Your task to perform on an android device: refresh tabs in the chrome app Image 0: 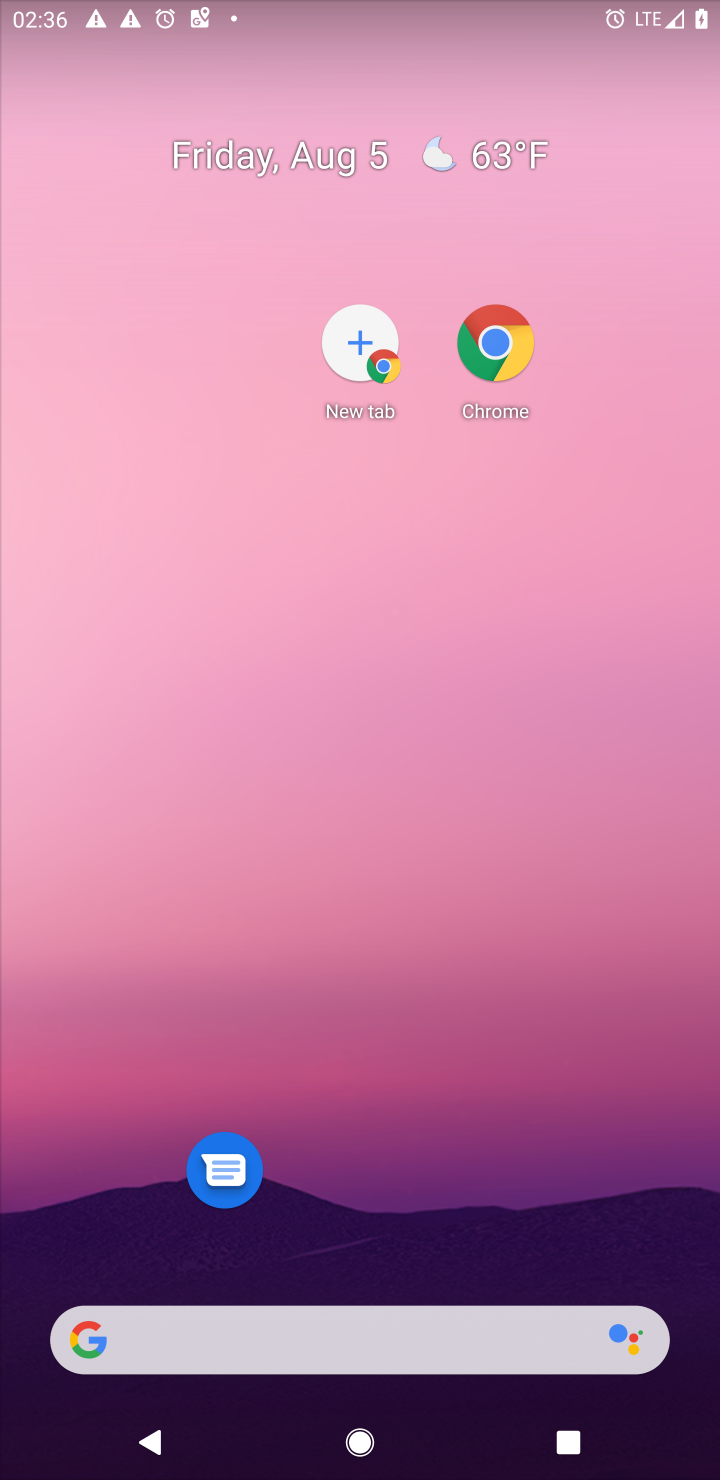
Step 0: drag from (345, 1009) to (298, 49)
Your task to perform on an android device: refresh tabs in the chrome app Image 1: 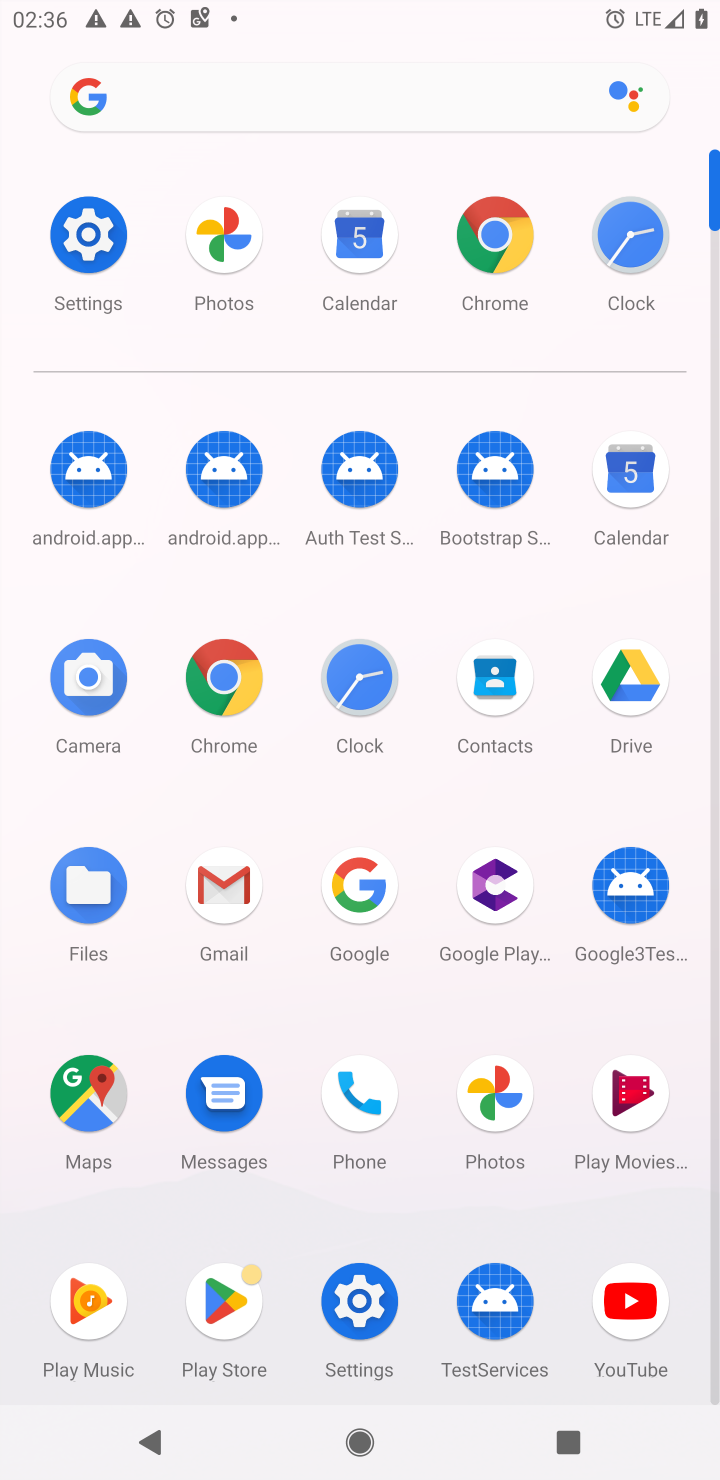
Step 1: click (236, 683)
Your task to perform on an android device: refresh tabs in the chrome app Image 2: 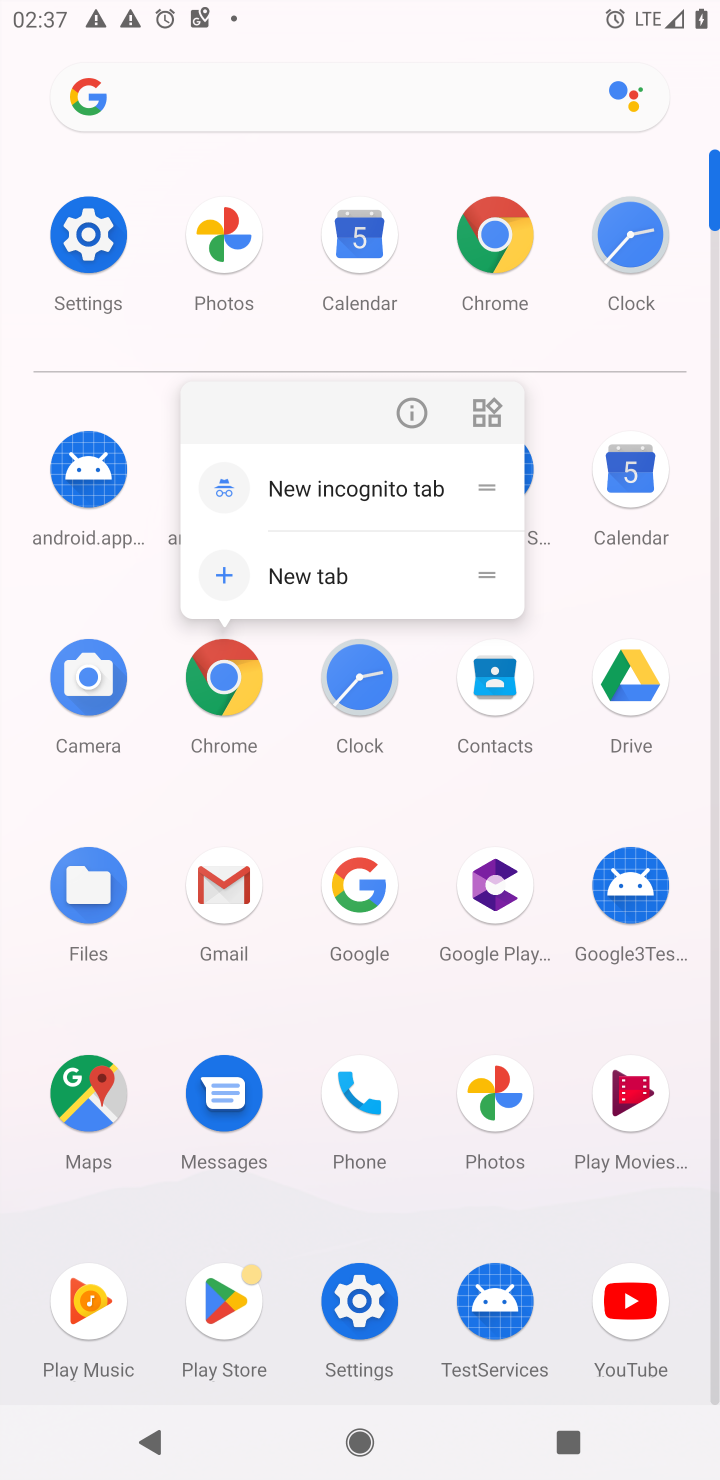
Step 2: click (235, 683)
Your task to perform on an android device: refresh tabs in the chrome app Image 3: 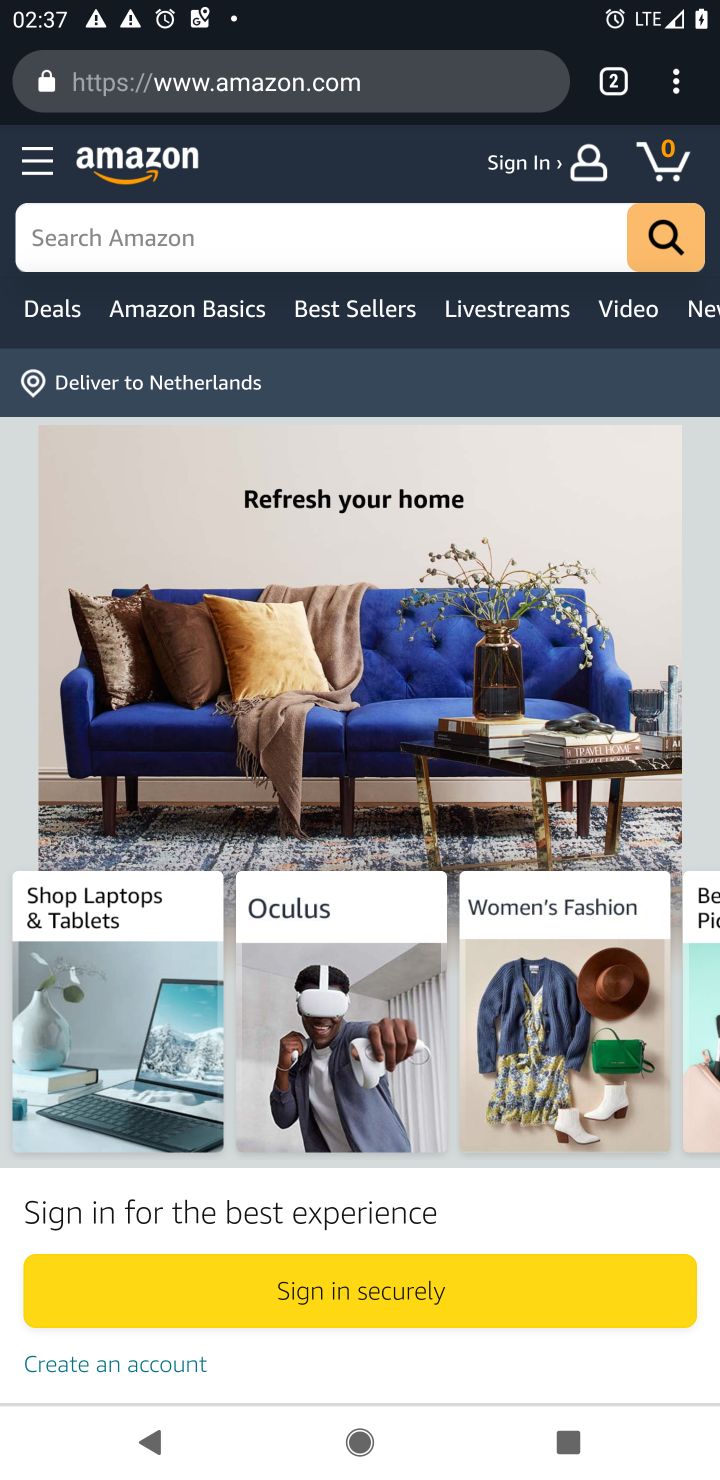
Step 3: click (677, 81)
Your task to perform on an android device: refresh tabs in the chrome app Image 4: 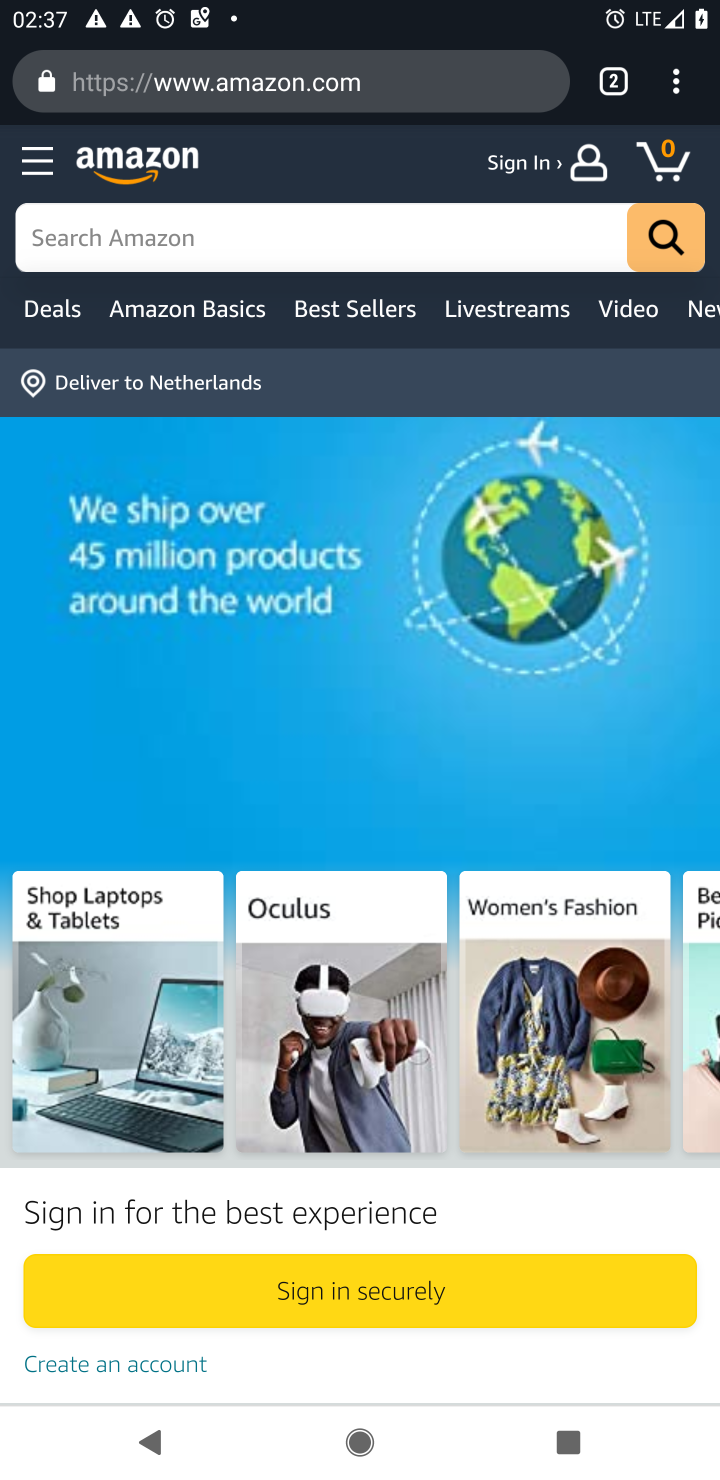
Step 4: click (666, 96)
Your task to perform on an android device: refresh tabs in the chrome app Image 5: 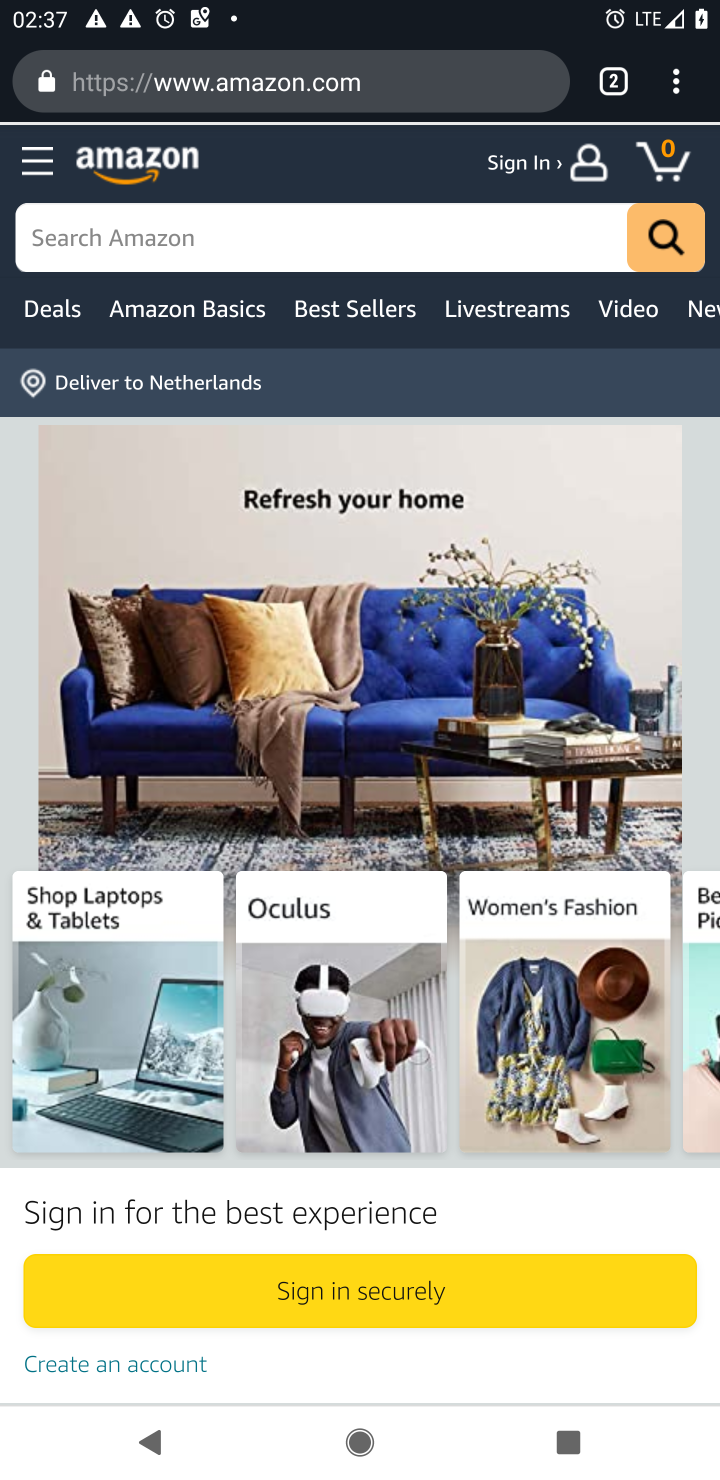
Step 5: click (680, 75)
Your task to perform on an android device: refresh tabs in the chrome app Image 6: 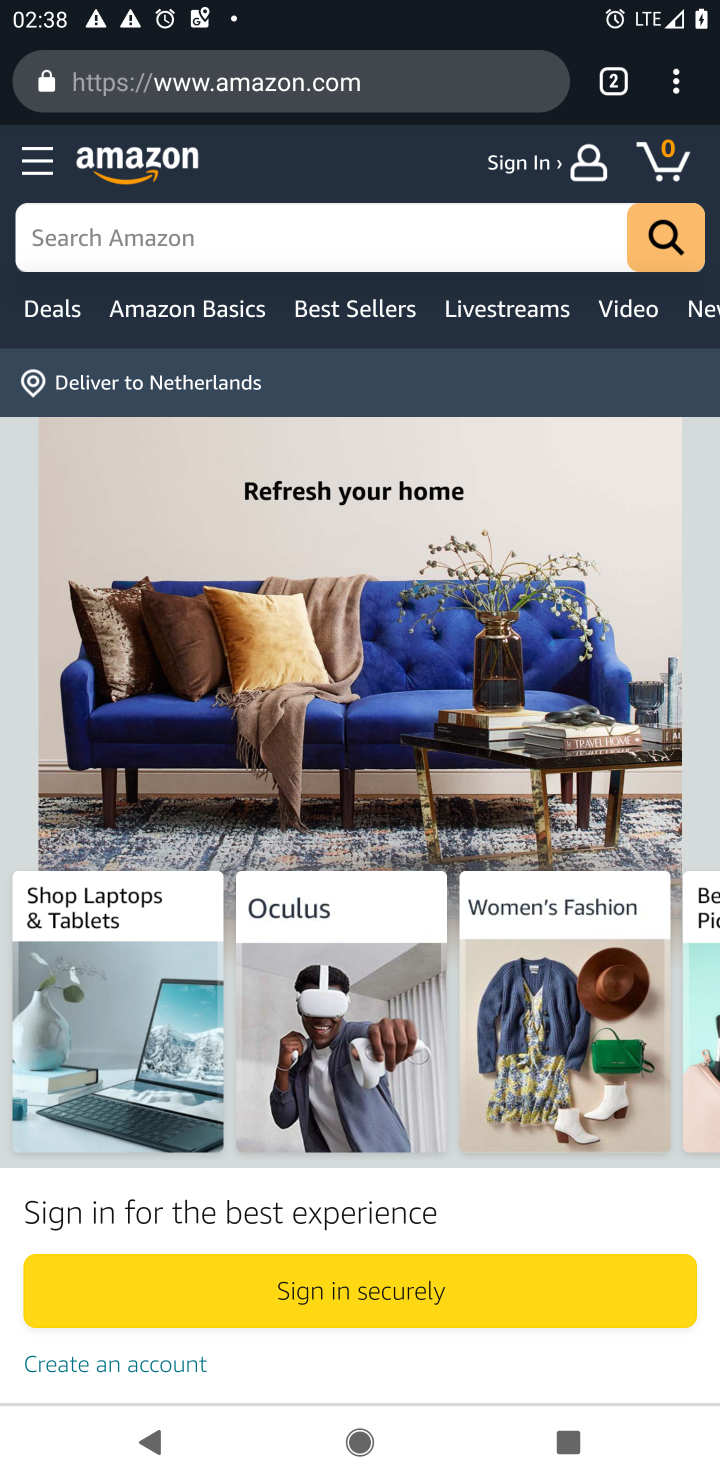
Step 6: task complete